Your task to perform on an android device: Open Chrome and go to settings Image 0: 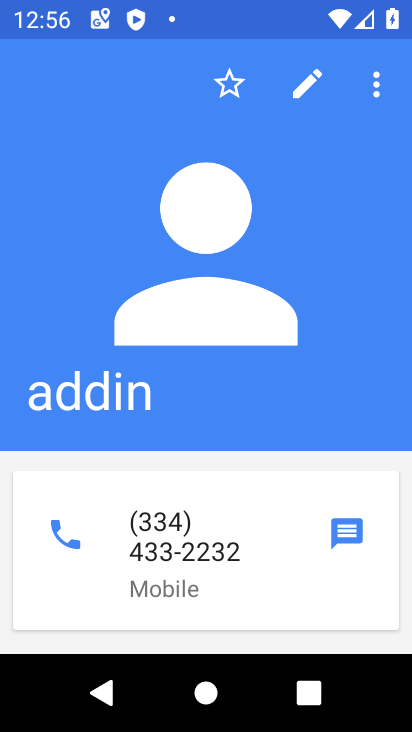
Step 0: press home button
Your task to perform on an android device: Open Chrome and go to settings Image 1: 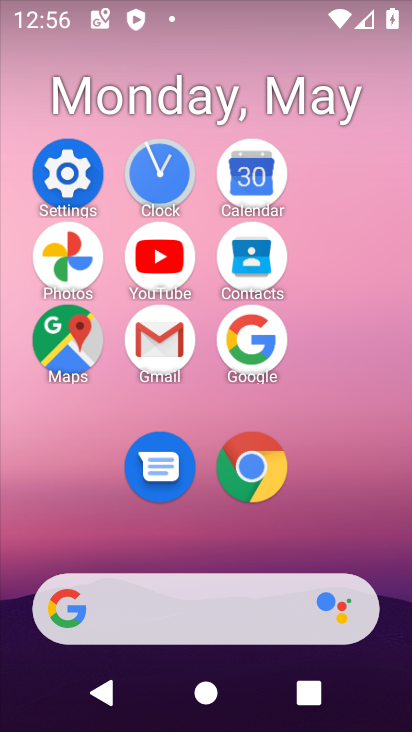
Step 1: click (262, 456)
Your task to perform on an android device: Open Chrome and go to settings Image 2: 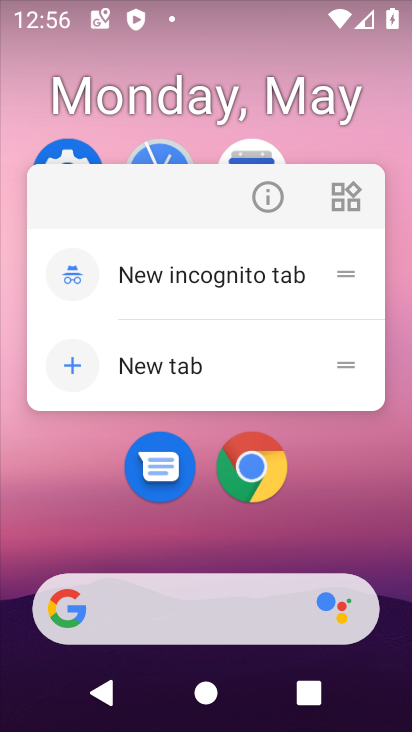
Step 2: click (278, 473)
Your task to perform on an android device: Open Chrome and go to settings Image 3: 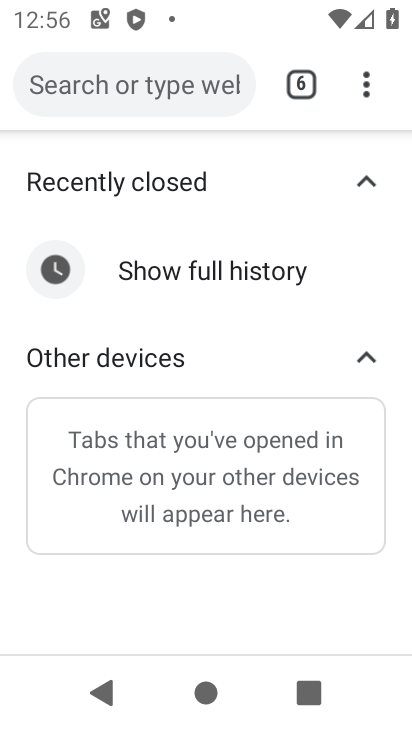
Step 3: click (375, 83)
Your task to perform on an android device: Open Chrome and go to settings Image 4: 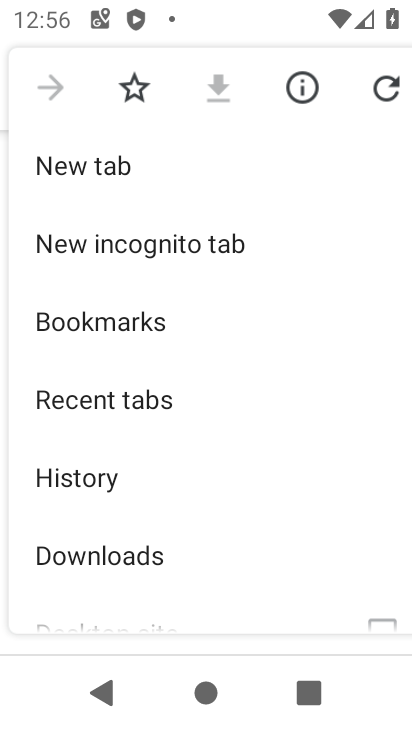
Step 4: drag from (228, 506) to (238, 161)
Your task to perform on an android device: Open Chrome and go to settings Image 5: 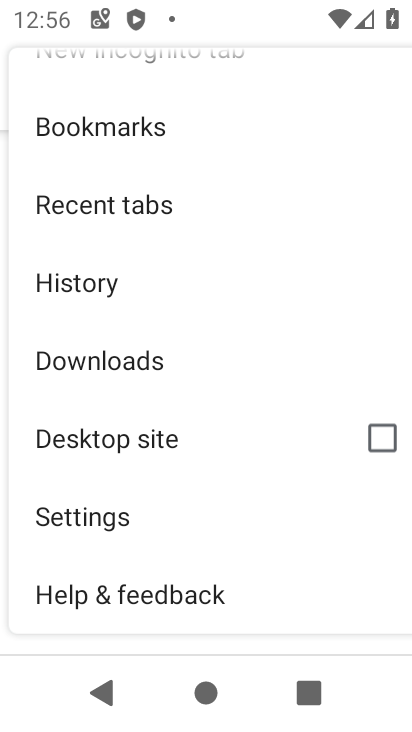
Step 5: click (124, 509)
Your task to perform on an android device: Open Chrome and go to settings Image 6: 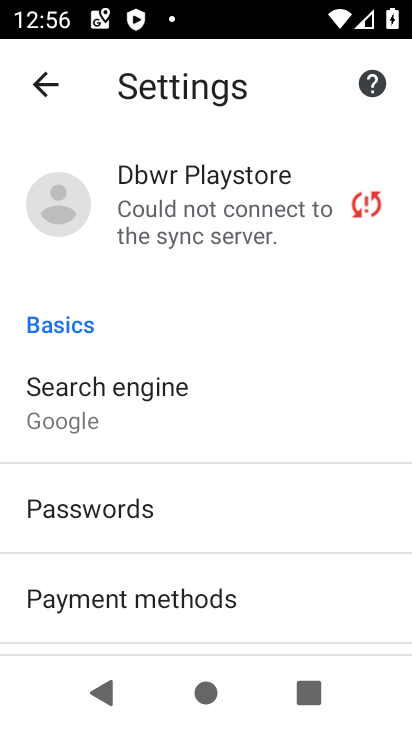
Step 6: task complete